Your task to perform on an android device: Turn on the flashlight Image 0: 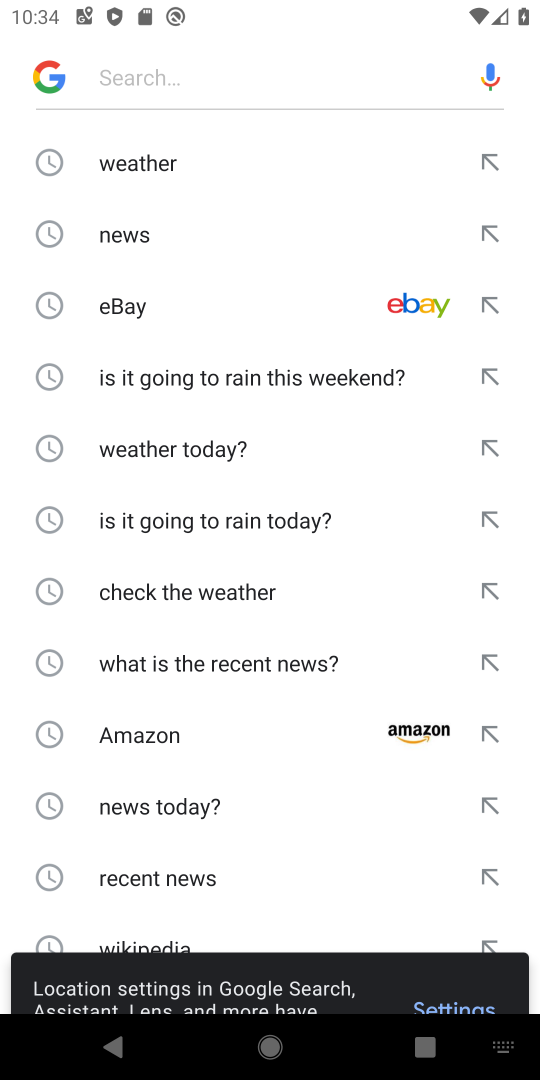
Step 0: press home button
Your task to perform on an android device: Turn on the flashlight Image 1: 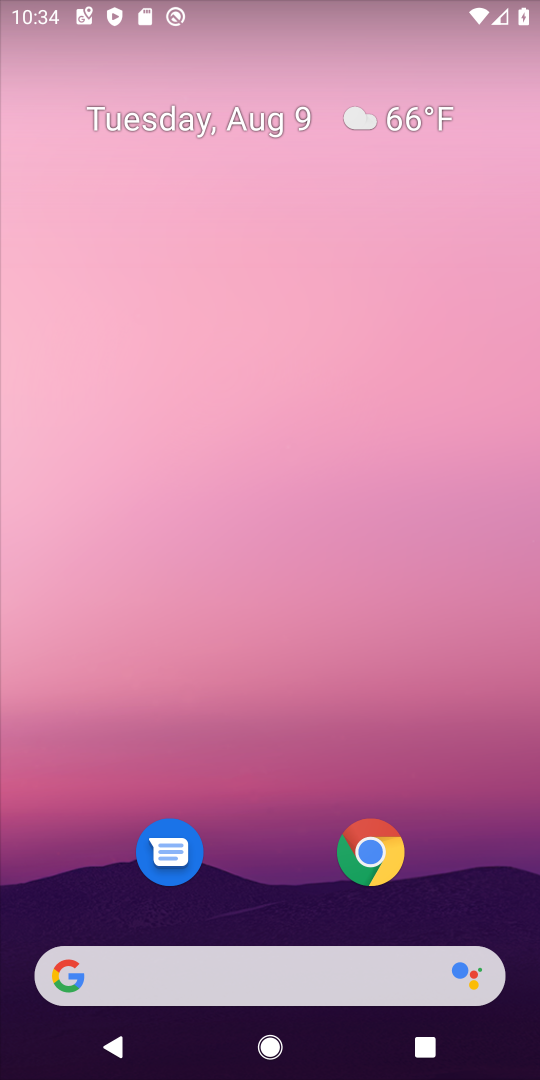
Step 1: drag from (241, 890) to (285, 152)
Your task to perform on an android device: Turn on the flashlight Image 2: 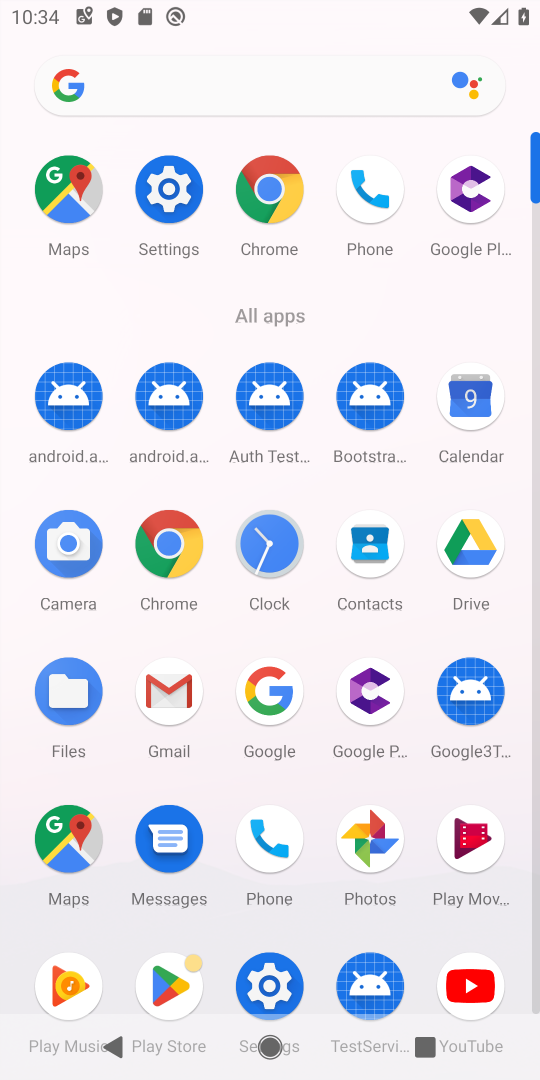
Step 2: click (177, 189)
Your task to perform on an android device: Turn on the flashlight Image 3: 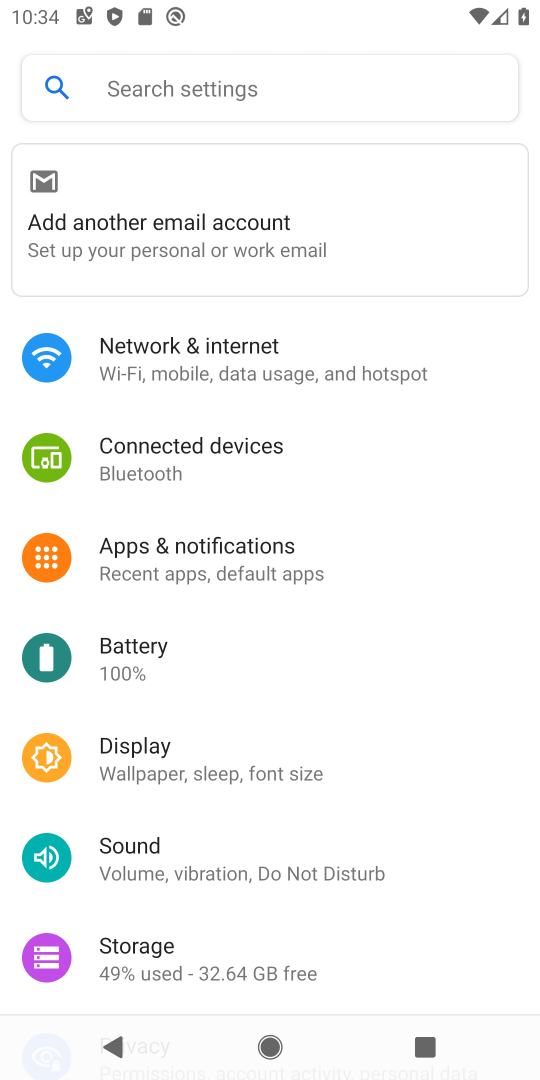
Step 3: task complete